Your task to perform on an android device: turn on bluetooth scan Image 0: 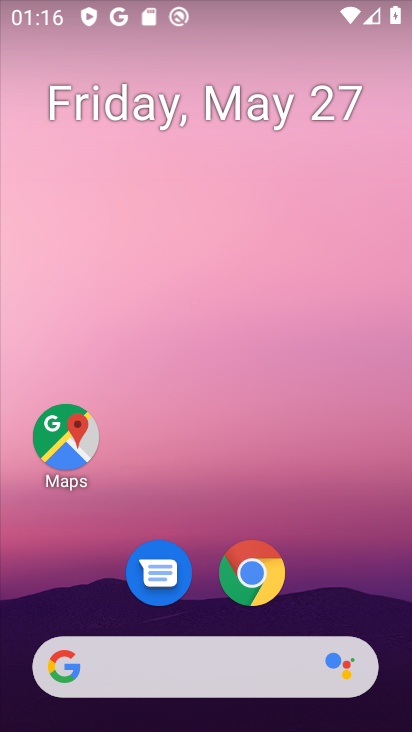
Step 0: drag from (200, 620) to (271, 19)
Your task to perform on an android device: turn on bluetooth scan Image 1: 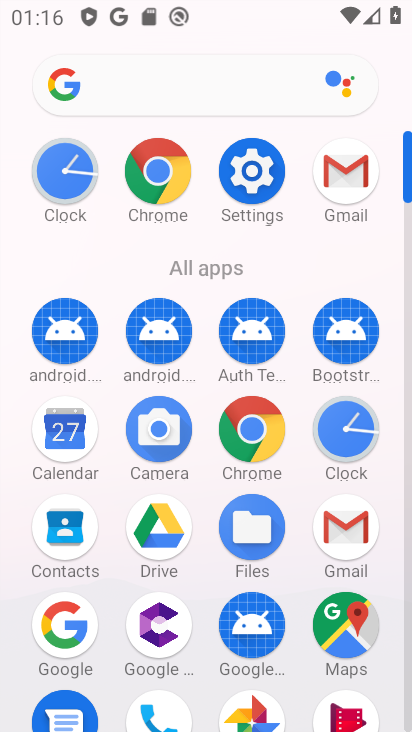
Step 1: click (249, 193)
Your task to perform on an android device: turn on bluetooth scan Image 2: 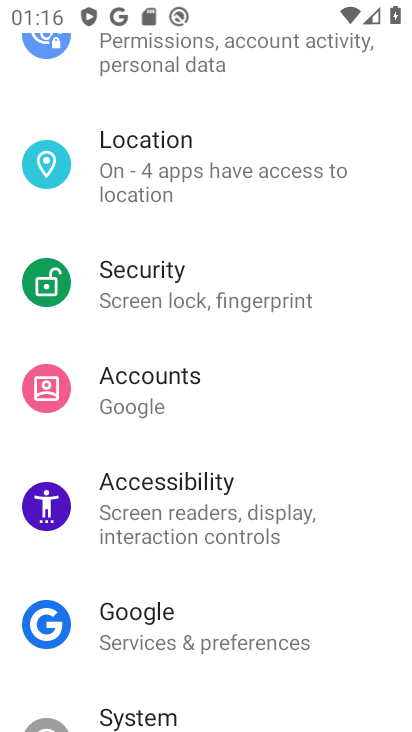
Step 2: click (150, 170)
Your task to perform on an android device: turn on bluetooth scan Image 3: 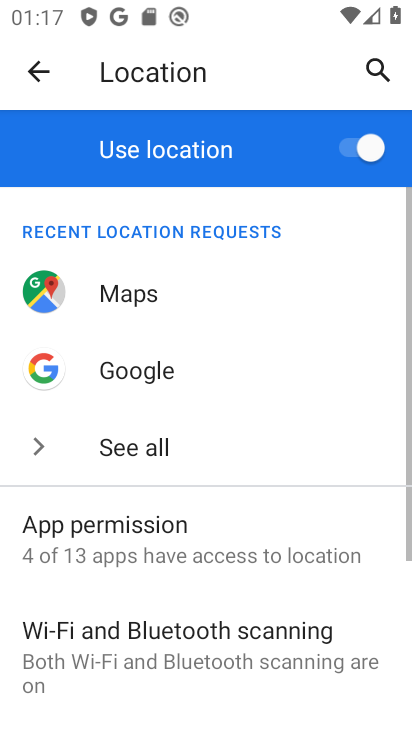
Step 3: click (262, 669)
Your task to perform on an android device: turn on bluetooth scan Image 4: 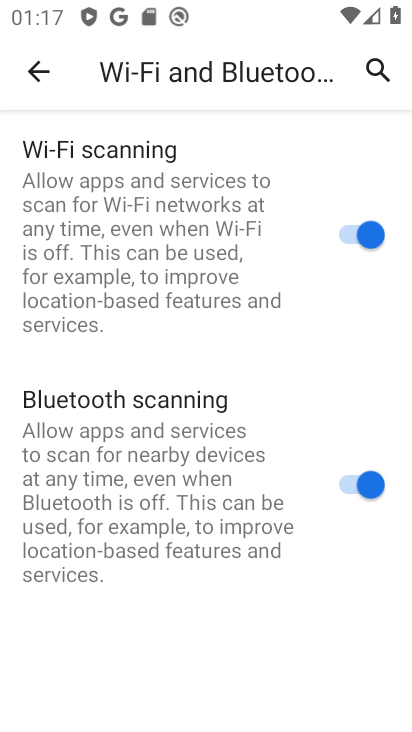
Step 4: task complete